Your task to perform on an android device: Check the news Image 0: 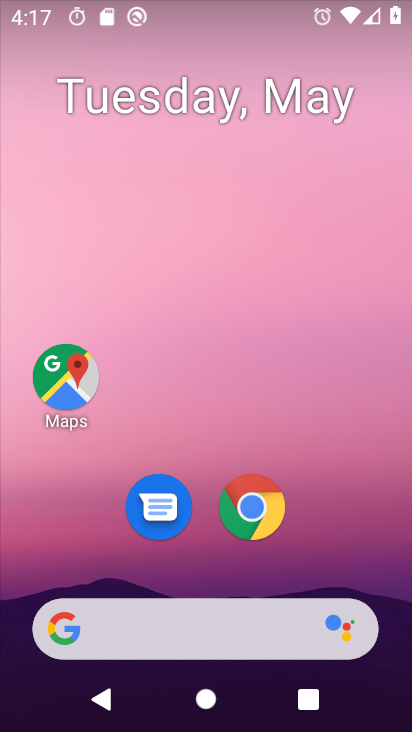
Step 0: click (115, 621)
Your task to perform on an android device: Check the news Image 1: 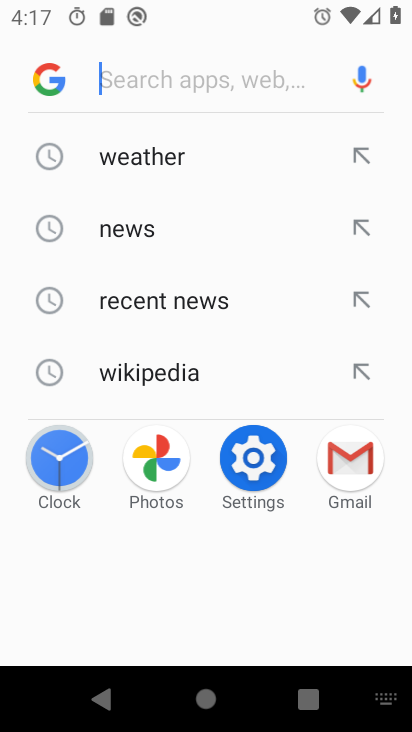
Step 1: type "news"
Your task to perform on an android device: Check the news Image 2: 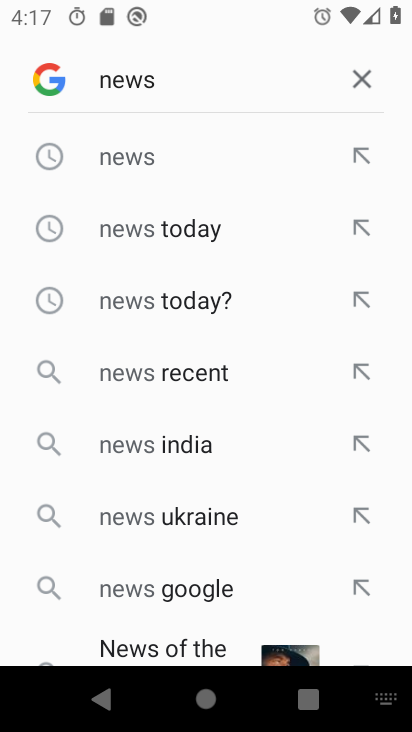
Step 2: click (119, 137)
Your task to perform on an android device: Check the news Image 3: 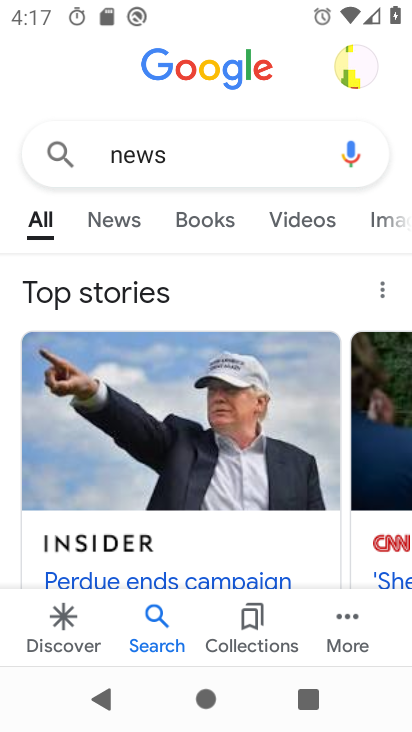
Step 3: click (82, 206)
Your task to perform on an android device: Check the news Image 4: 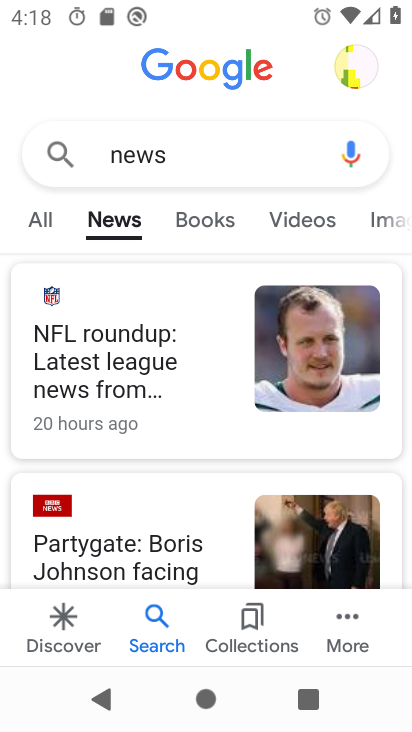
Step 4: task complete